Your task to perform on an android device: turn off improve location accuracy Image 0: 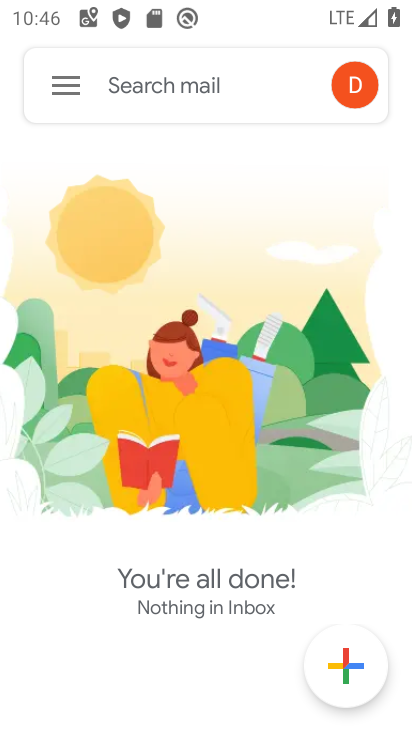
Step 0: press home button
Your task to perform on an android device: turn off improve location accuracy Image 1: 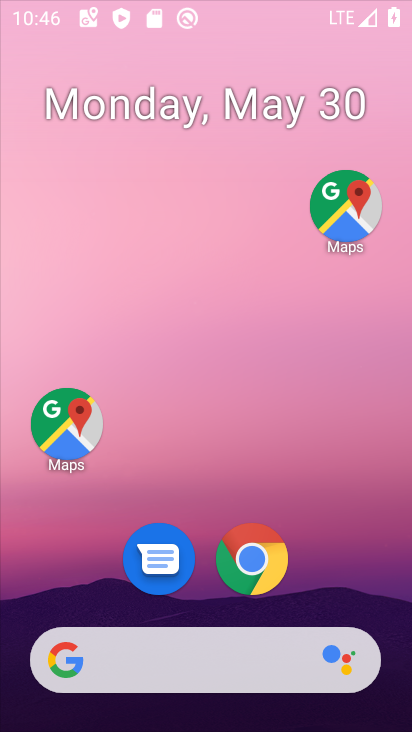
Step 1: drag from (347, 486) to (269, 22)
Your task to perform on an android device: turn off improve location accuracy Image 2: 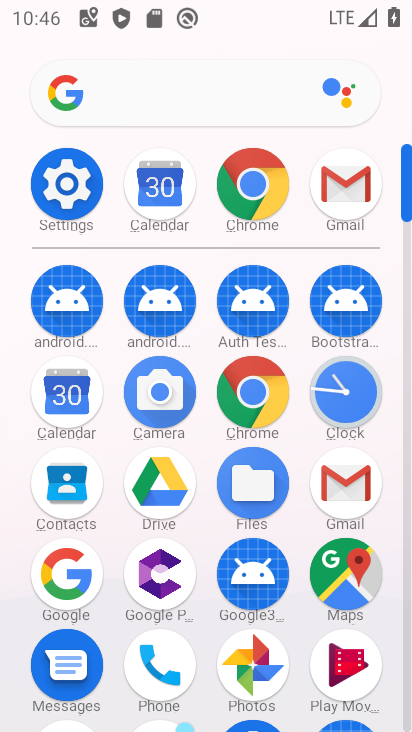
Step 2: click (81, 188)
Your task to perform on an android device: turn off improve location accuracy Image 3: 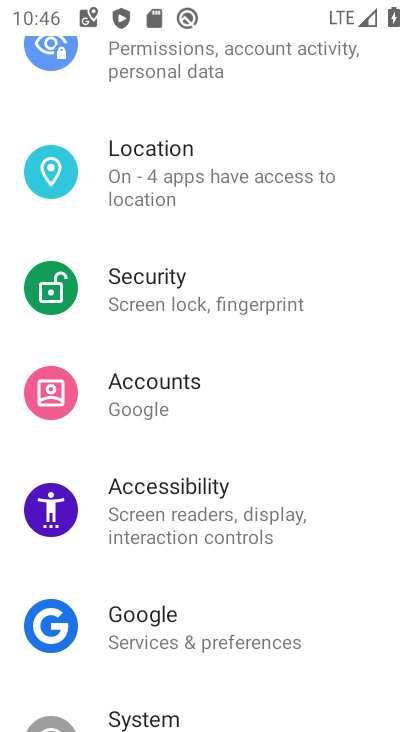
Step 3: click (211, 165)
Your task to perform on an android device: turn off improve location accuracy Image 4: 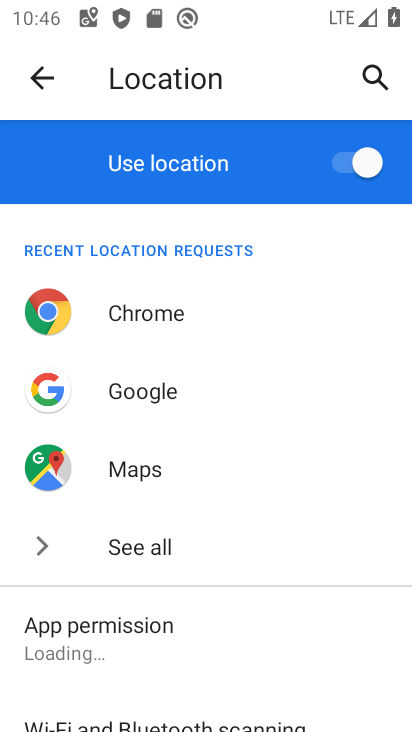
Step 4: drag from (231, 673) to (229, 306)
Your task to perform on an android device: turn off improve location accuracy Image 5: 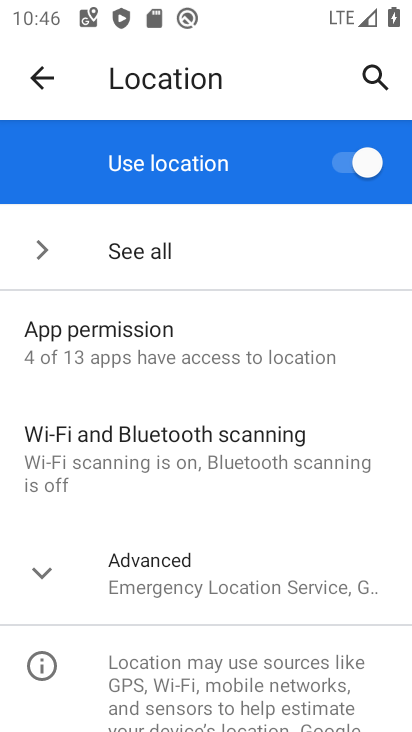
Step 5: click (180, 556)
Your task to perform on an android device: turn off improve location accuracy Image 6: 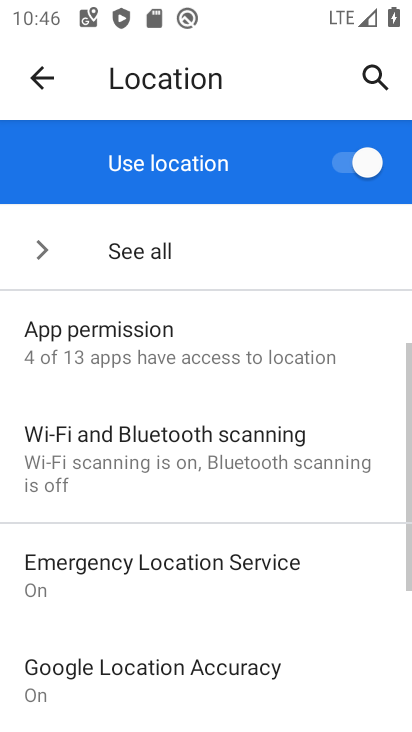
Step 6: drag from (319, 636) to (322, 218)
Your task to perform on an android device: turn off improve location accuracy Image 7: 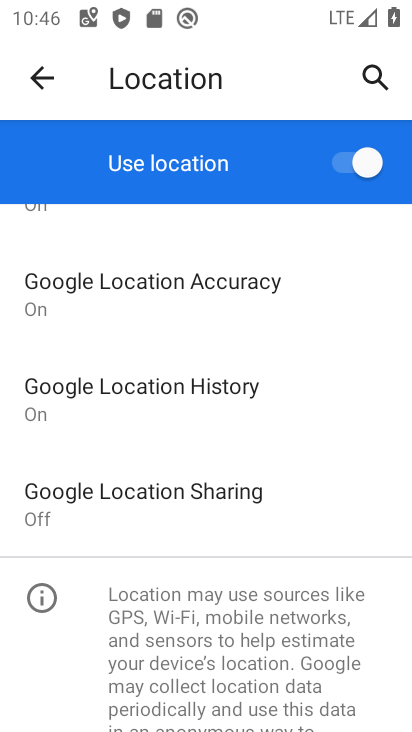
Step 7: click (251, 291)
Your task to perform on an android device: turn off improve location accuracy Image 8: 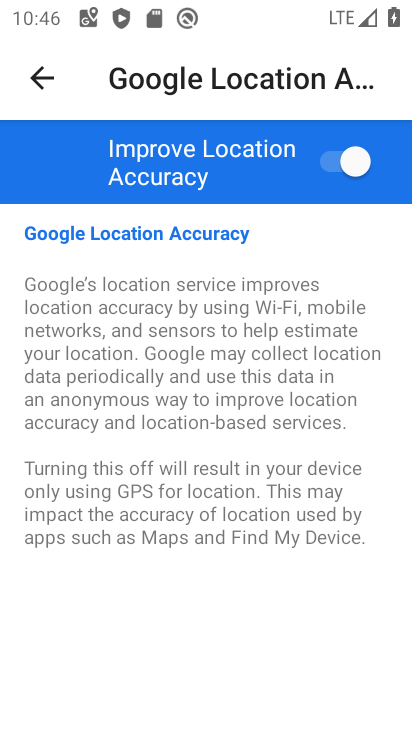
Step 8: click (345, 163)
Your task to perform on an android device: turn off improve location accuracy Image 9: 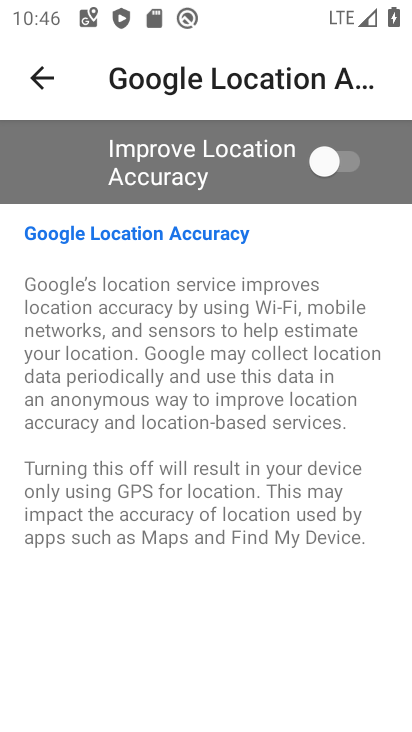
Step 9: task complete